Your task to perform on an android device: turn notification dots off Image 0: 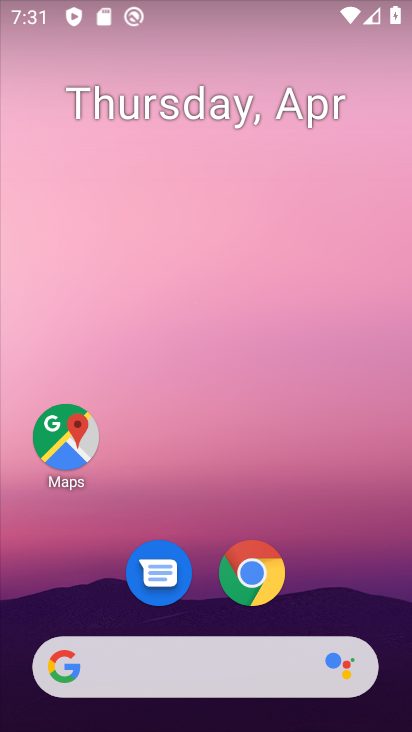
Step 0: press home button
Your task to perform on an android device: turn notification dots off Image 1: 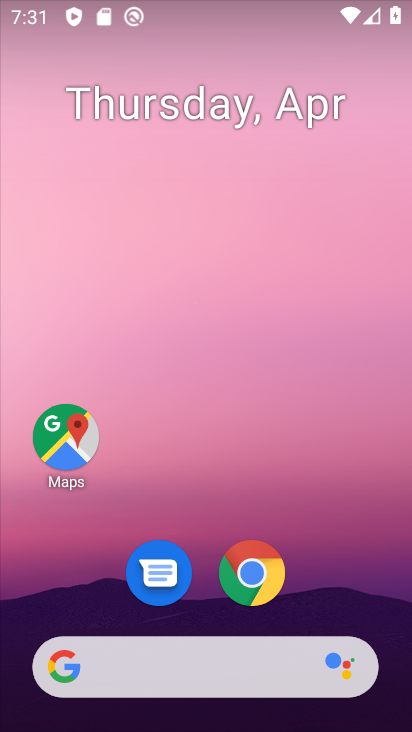
Step 1: press home button
Your task to perform on an android device: turn notification dots off Image 2: 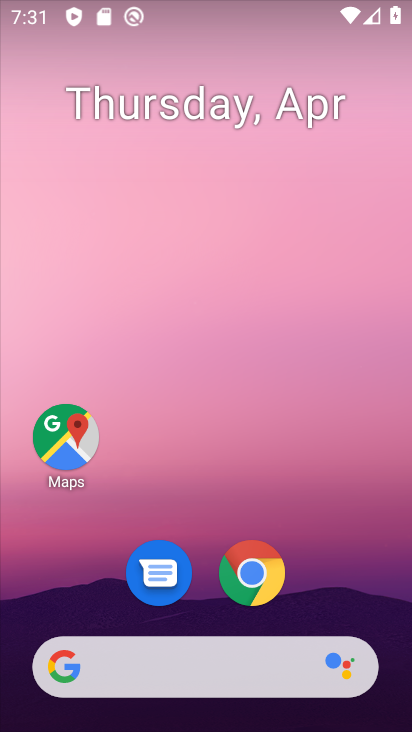
Step 2: drag from (211, 590) to (254, 68)
Your task to perform on an android device: turn notification dots off Image 3: 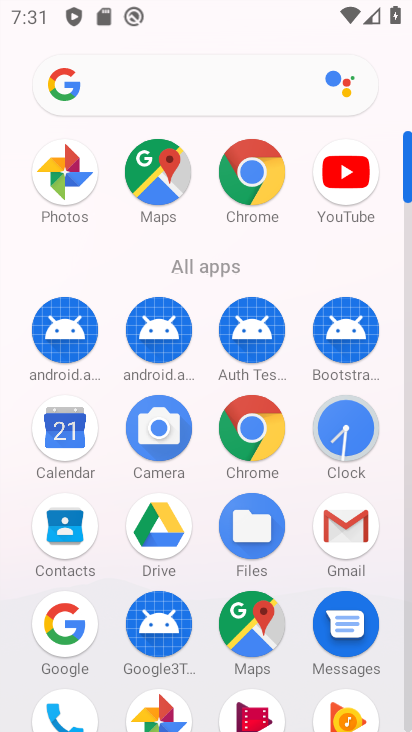
Step 3: drag from (201, 569) to (212, 121)
Your task to perform on an android device: turn notification dots off Image 4: 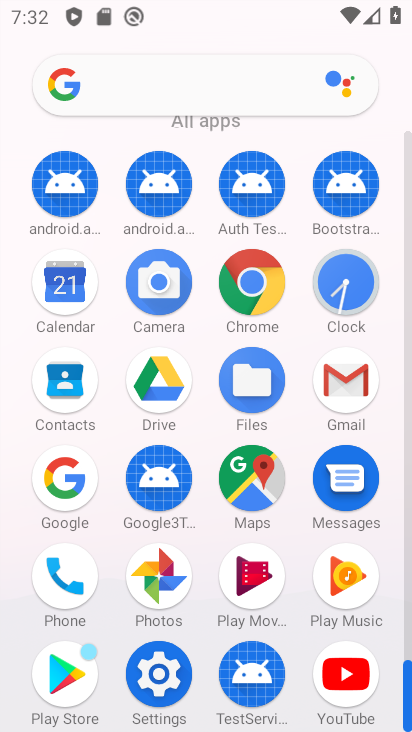
Step 4: click (157, 664)
Your task to perform on an android device: turn notification dots off Image 5: 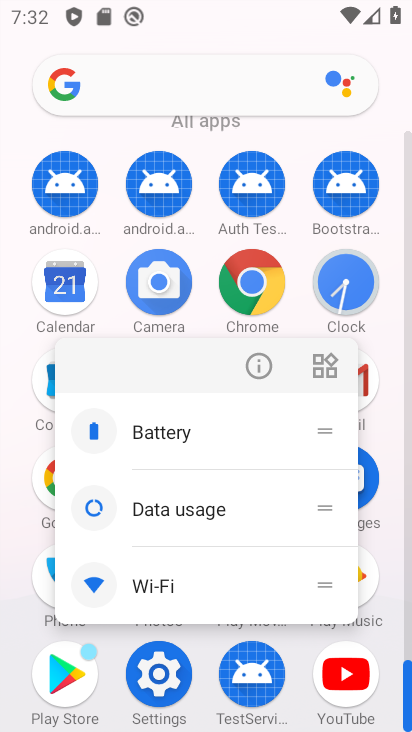
Step 5: click (157, 664)
Your task to perform on an android device: turn notification dots off Image 6: 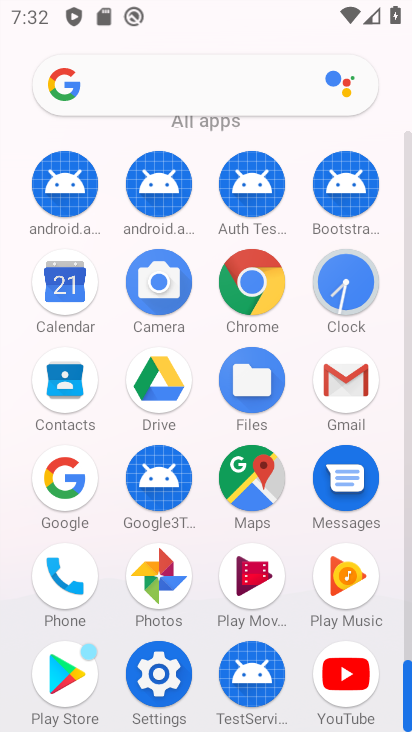
Step 6: click (156, 669)
Your task to perform on an android device: turn notification dots off Image 7: 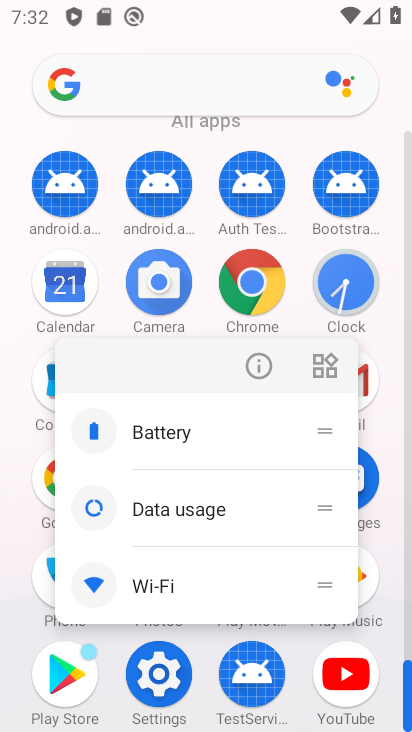
Step 7: click (156, 669)
Your task to perform on an android device: turn notification dots off Image 8: 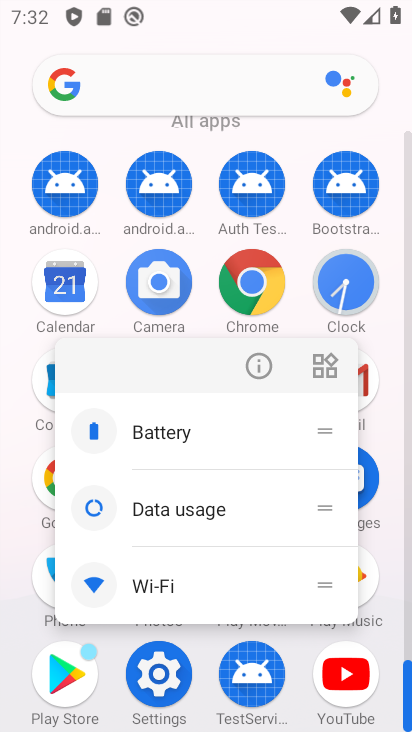
Step 8: click (156, 669)
Your task to perform on an android device: turn notification dots off Image 9: 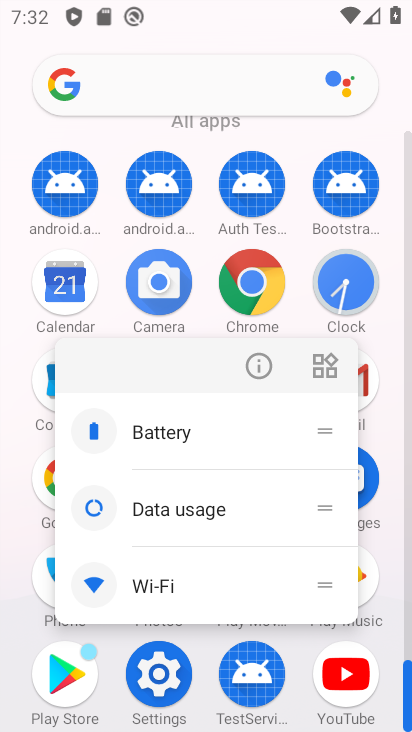
Step 9: click (18, 148)
Your task to perform on an android device: turn notification dots off Image 10: 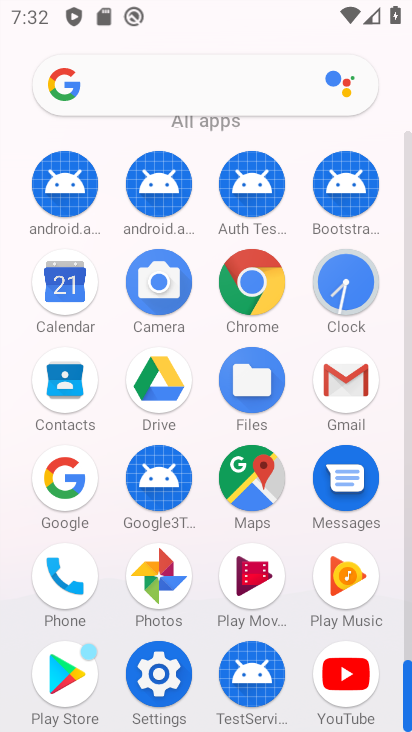
Step 10: click (155, 666)
Your task to perform on an android device: turn notification dots off Image 11: 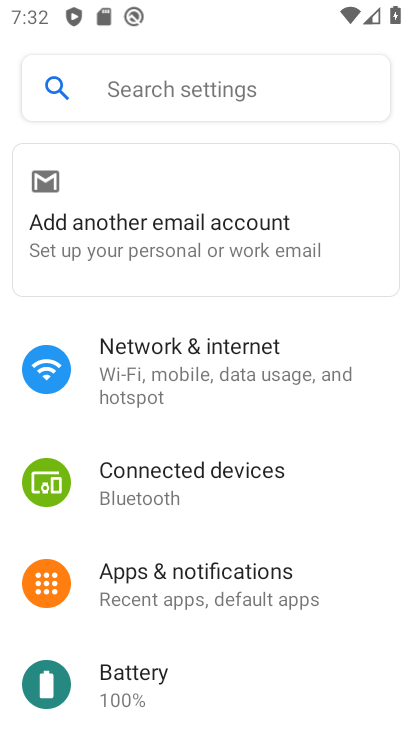
Step 11: click (177, 585)
Your task to perform on an android device: turn notification dots off Image 12: 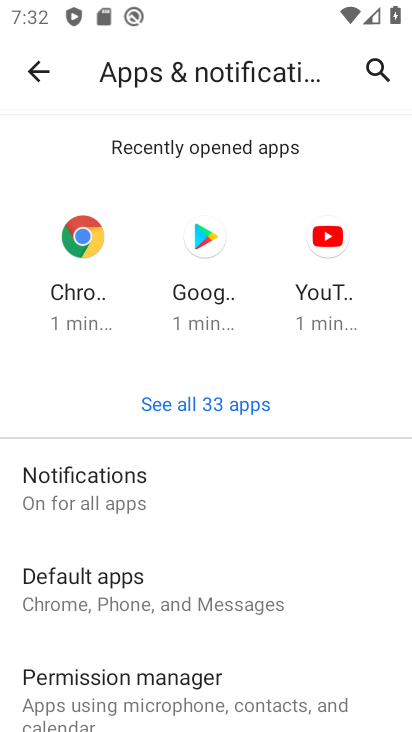
Step 12: click (161, 487)
Your task to perform on an android device: turn notification dots off Image 13: 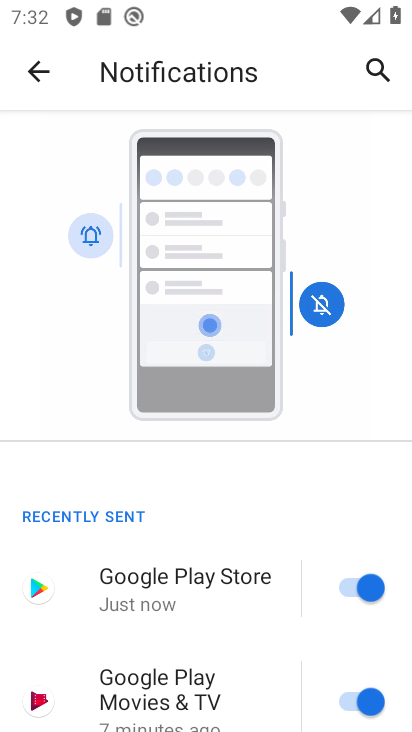
Step 13: drag from (205, 656) to (252, 149)
Your task to perform on an android device: turn notification dots off Image 14: 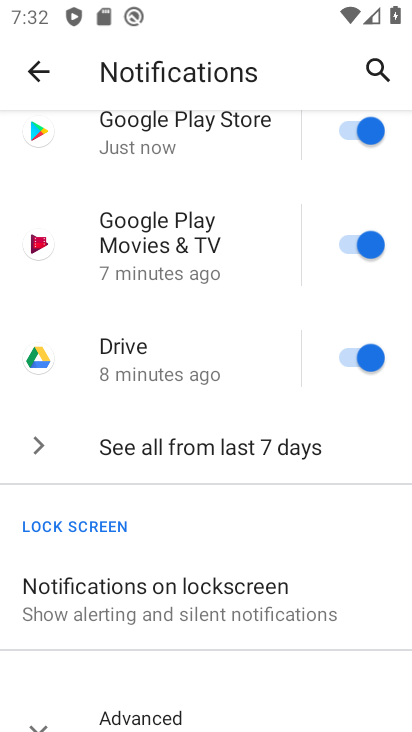
Step 14: drag from (189, 653) to (227, 201)
Your task to perform on an android device: turn notification dots off Image 15: 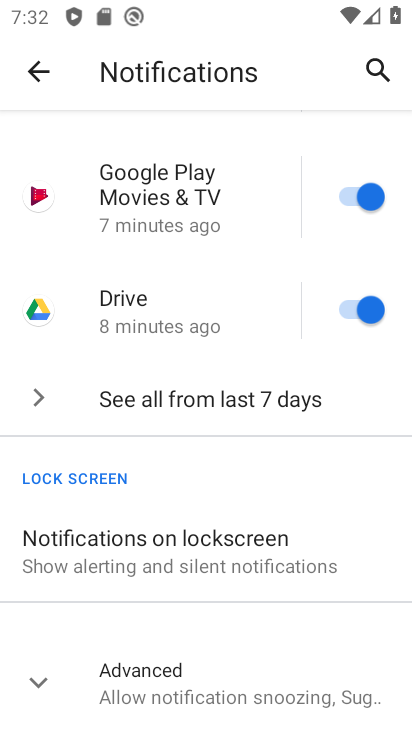
Step 15: click (37, 677)
Your task to perform on an android device: turn notification dots off Image 16: 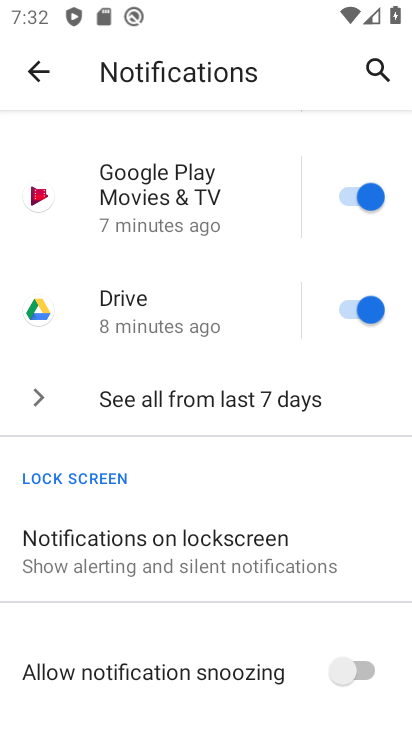
Step 16: drag from (138, 686) to (190, 157)
Your task to perform on an android device: turn notification dots off Image 17: 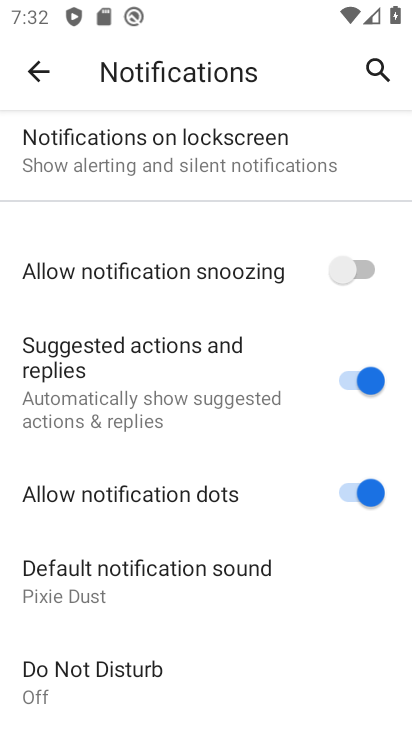
Step 17: click (346, 488)
Your task to perform on an android device: turn notification dots off Image 18: 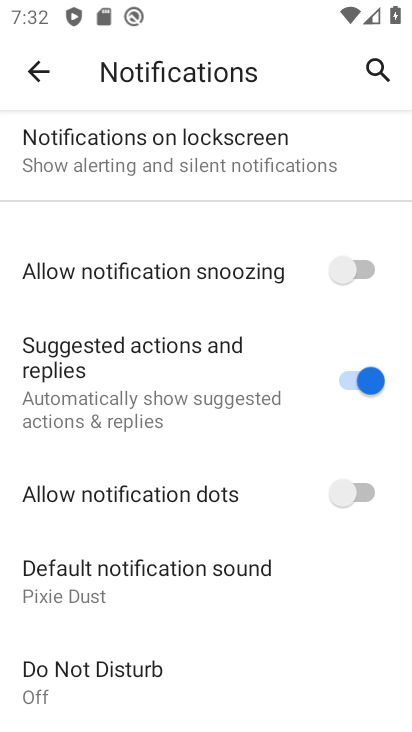
Step 18: task complete